Your task to perform on an android device: Turn on the flashlight Image 0: 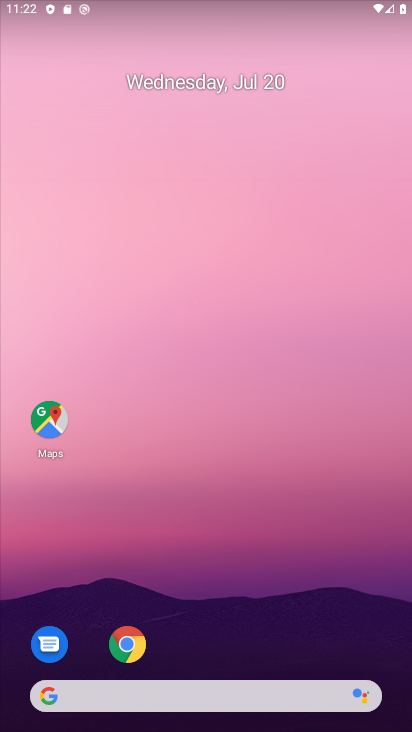
Step 0: click (158, 213)
Your task to perform on an android device: Turn on the flashlight Image 1: 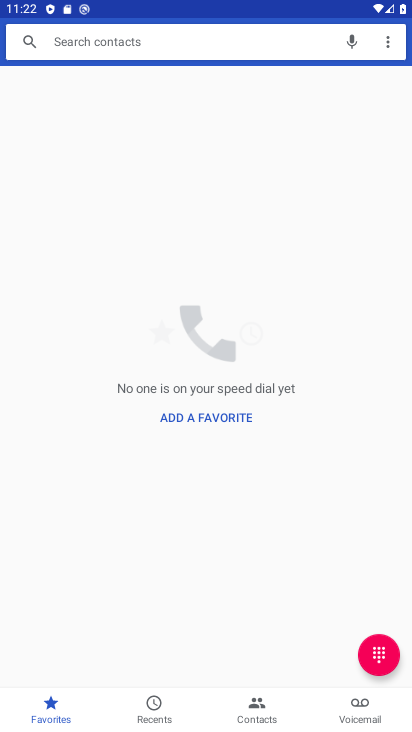
Step 1: task complete